Your task to perform on an android device: change the upload size in google photos Image 0: 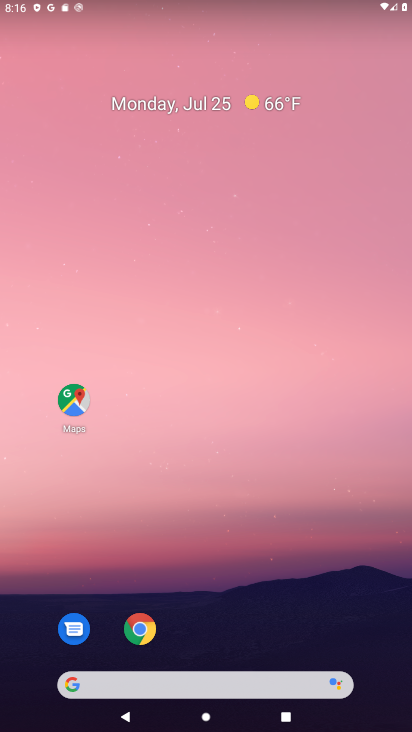
Step 0: drag from (272, 623) to (274, 130)
Your task to perform on an android device: change the upload size in google photos Image 1: 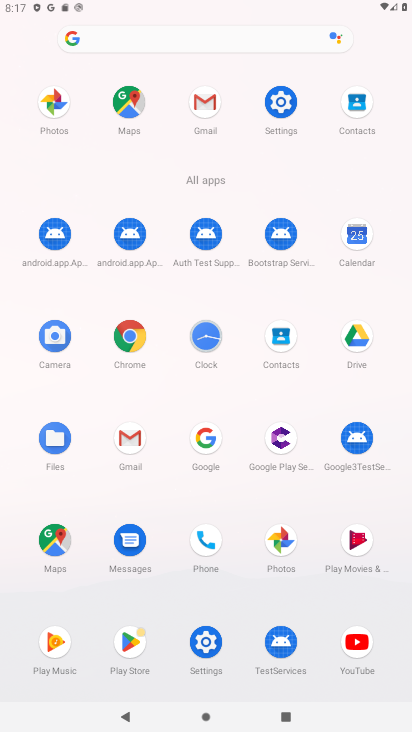
Step 1: click (285, 539)
Your task to perform on an android device: change the upload size in google photos Image 2: 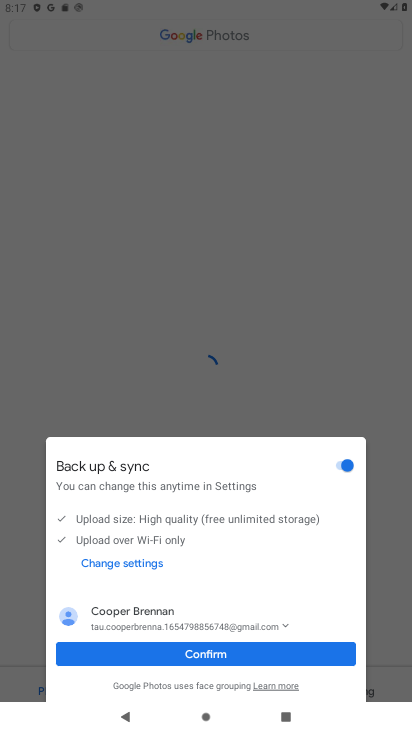
Step 2: click (243, 649)
Your task to perform on an android device: change the upload size in google photos Image 3: 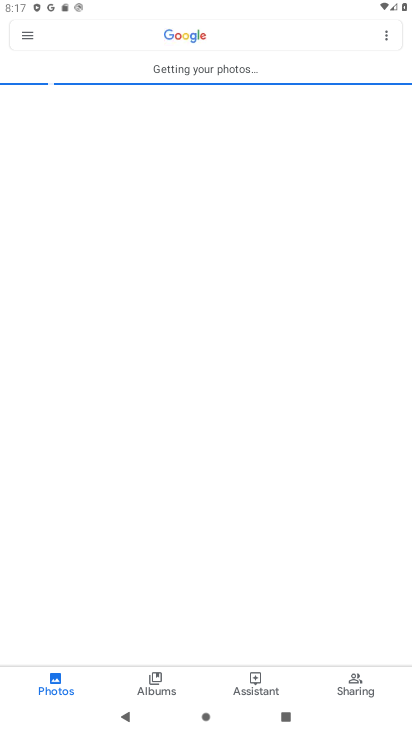
Step 3: click (25, 27)
Your task to perform on an android device: change the upload size in google photos Image 4: 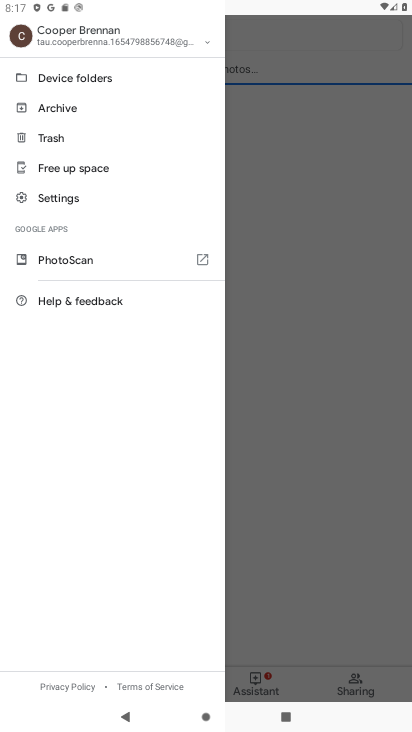
Step 4: click (34, 191)
Your task to perform on an android device: change the upload size in google photos Image 5: 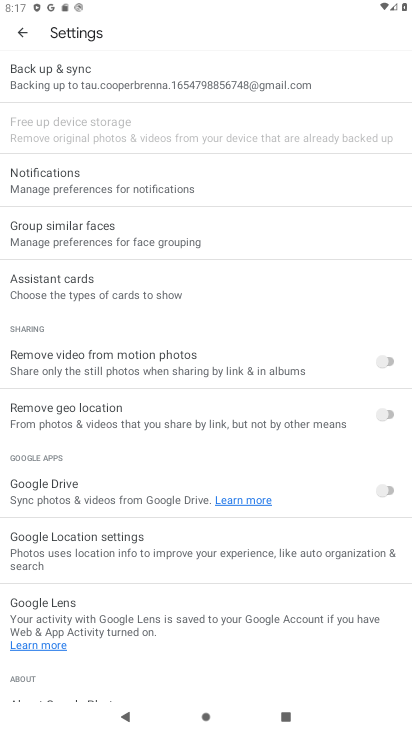
Step 5: click (109, 84)
Your task to perform on an android device: change the upload size in google photos Image 6: 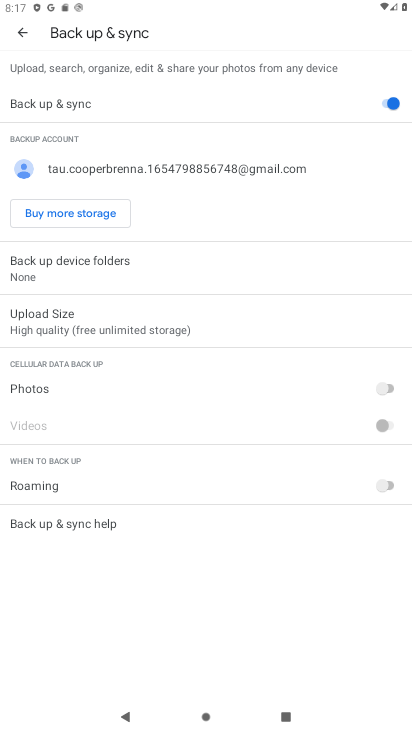
Step 6: click (135, 312)
Your task to perform on an android device: change the upload size in google photos Image 7: 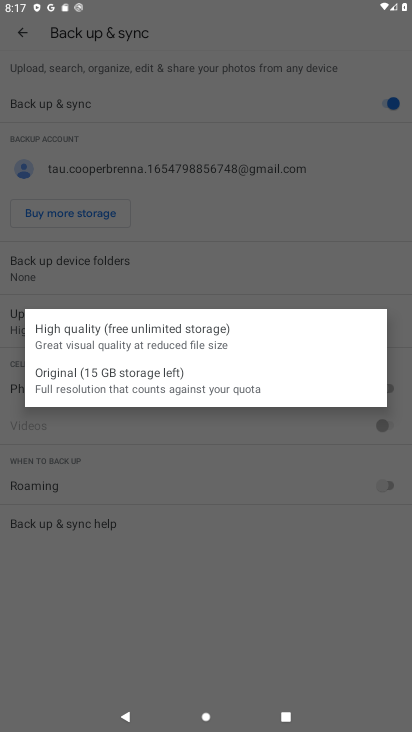
Step 7: click (129, 378)
Your task to perform on an android device: change the upload size in google photos Image 8: 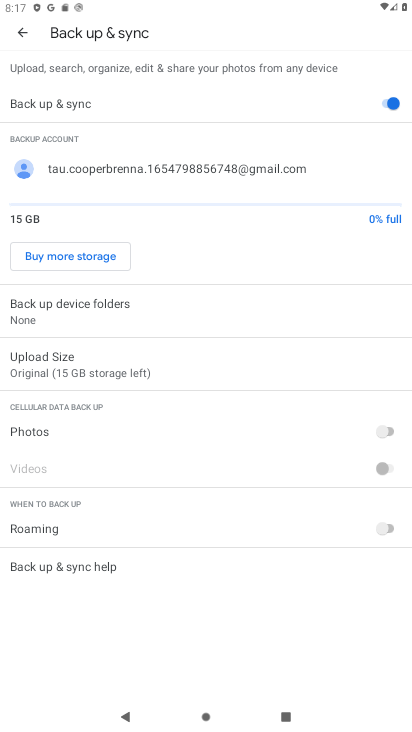
Step 8: task complete